Your task to perform on an android device: Add macbook pro to the cart on costco Image 0: 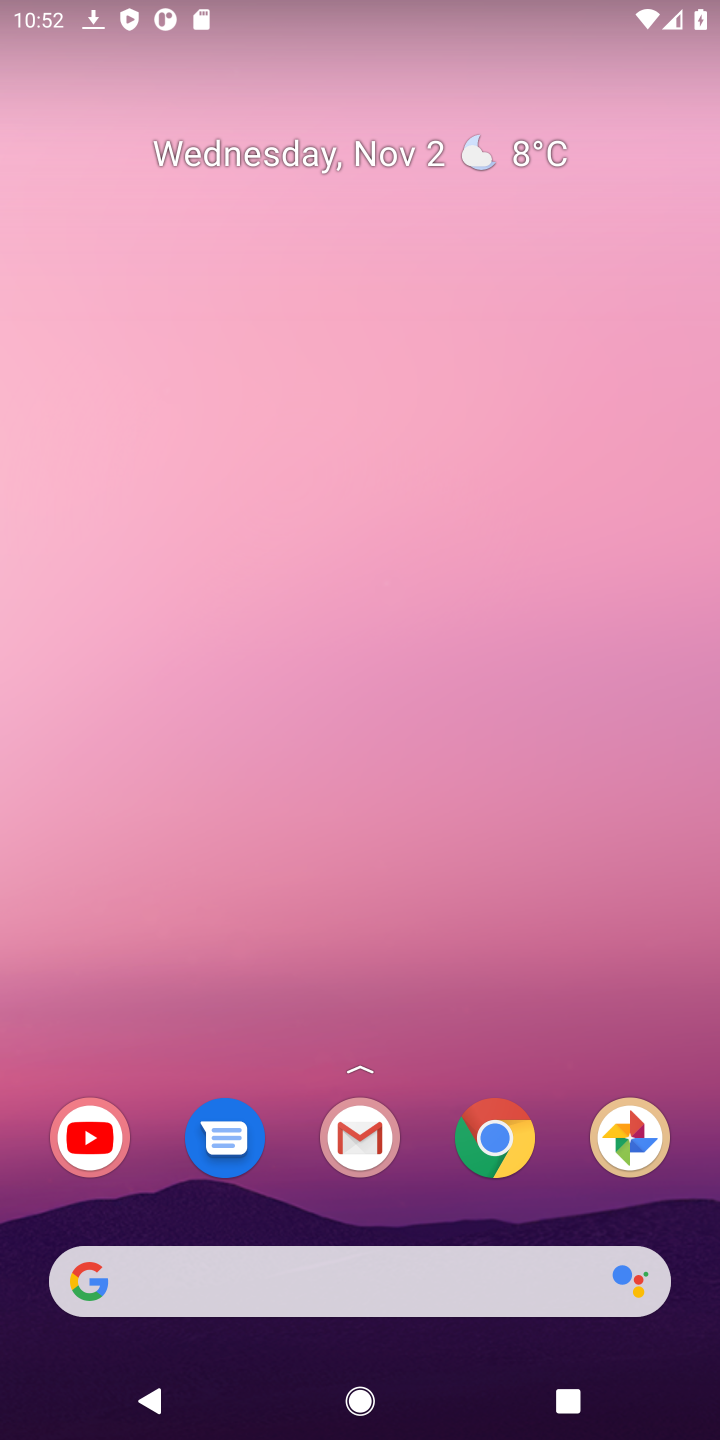
Step 0: click (485, 1108)
Your task to perform on an android device: Add macbook pro to the cart on costco Image 1: 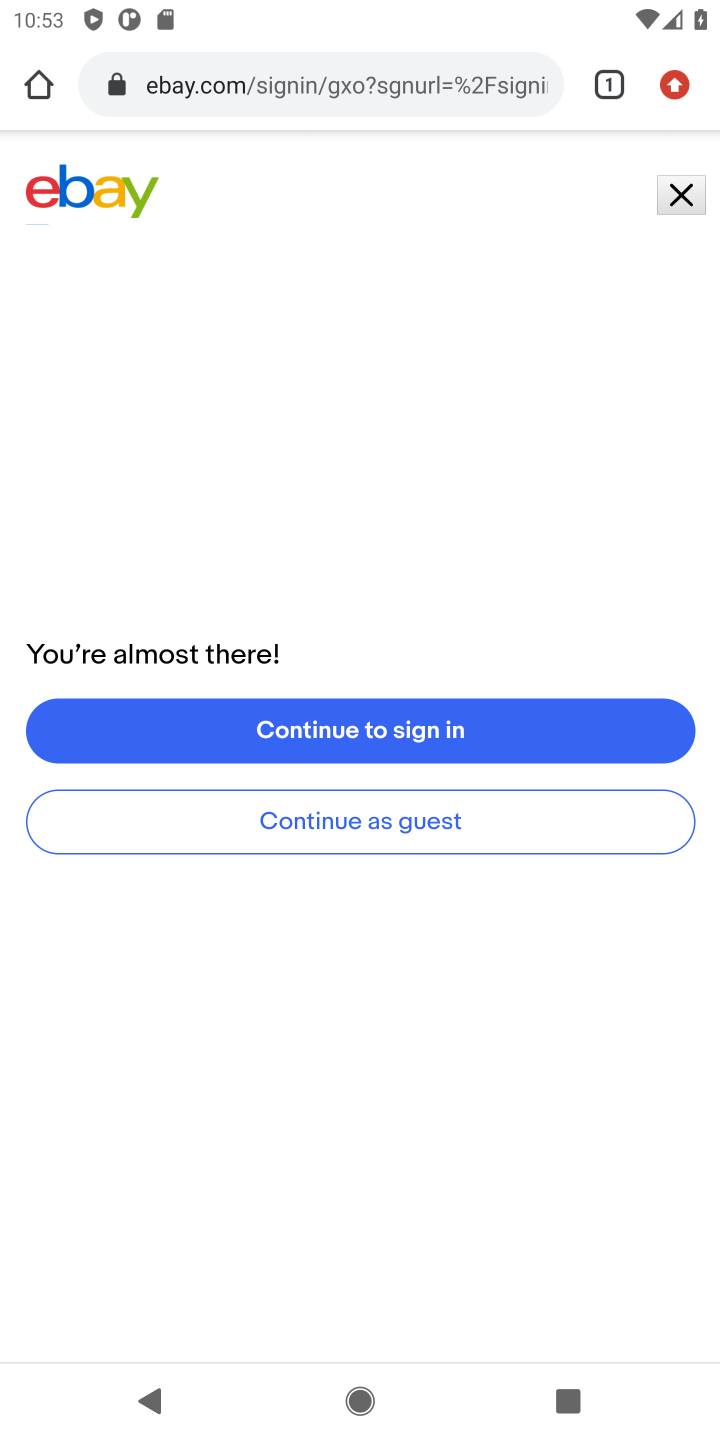
Step 1: click (242, 93)
Your task to perform on an android device: Add macbook pro to the cart on costco Image 2: 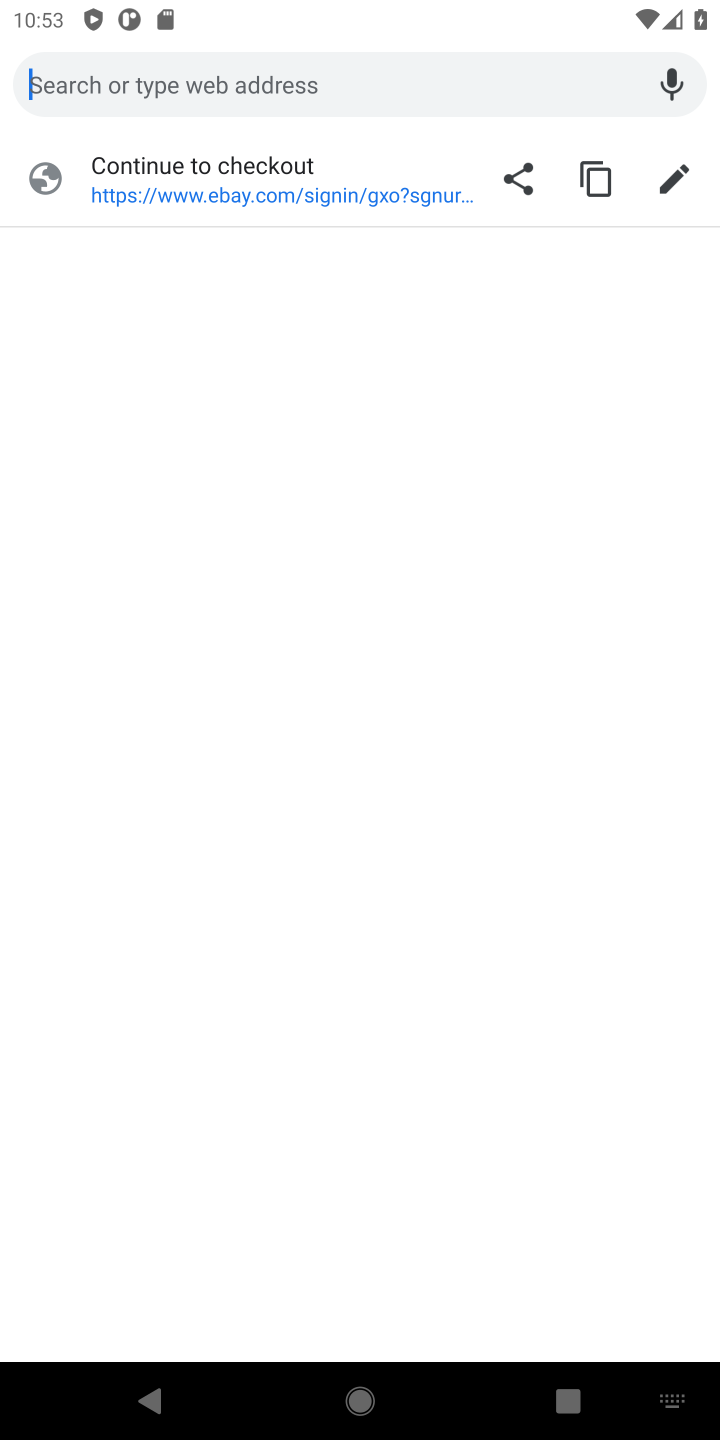
Step 2: click (242, 93)
Your task to perform on an android device: Add macbook pro to the cart on costco Image 3: 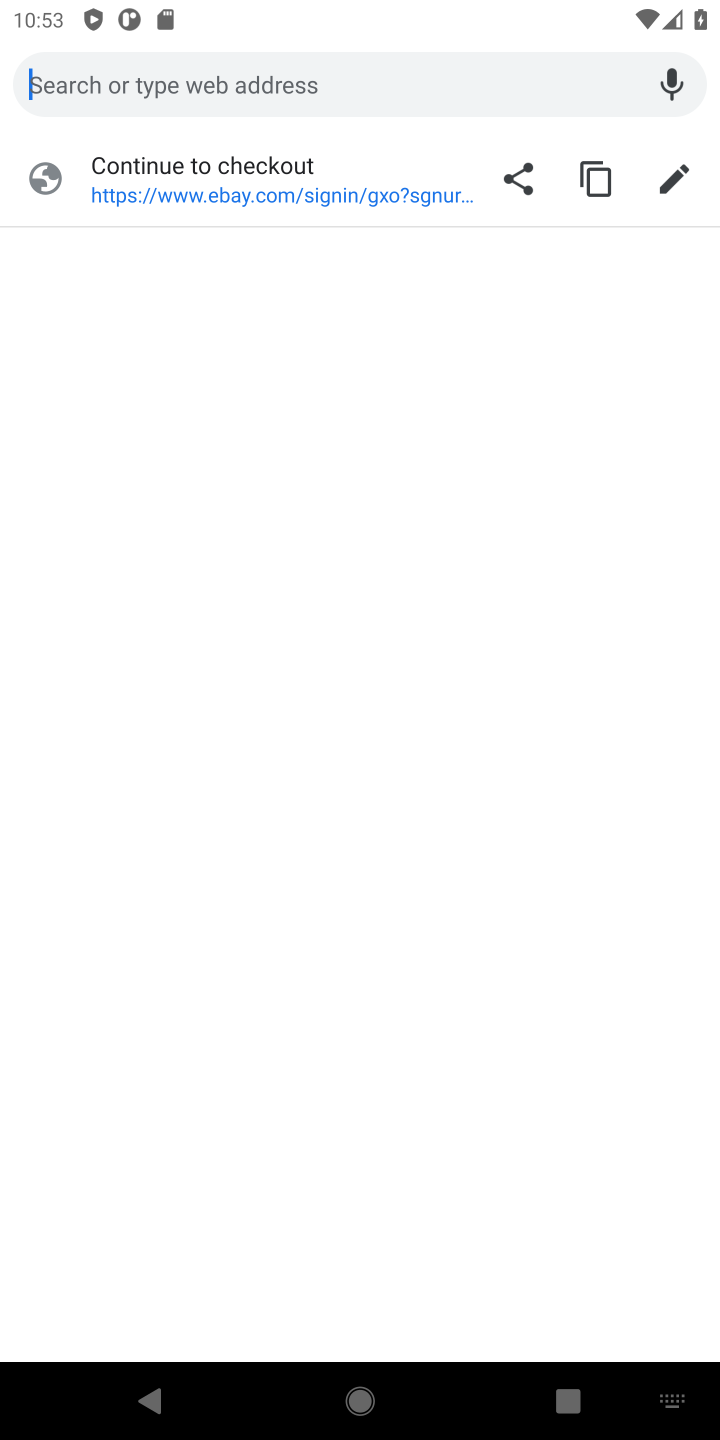
Step 3: type "costco"
Your task to perform on an android device: Add macbook pro to the cart on costco Image 4: 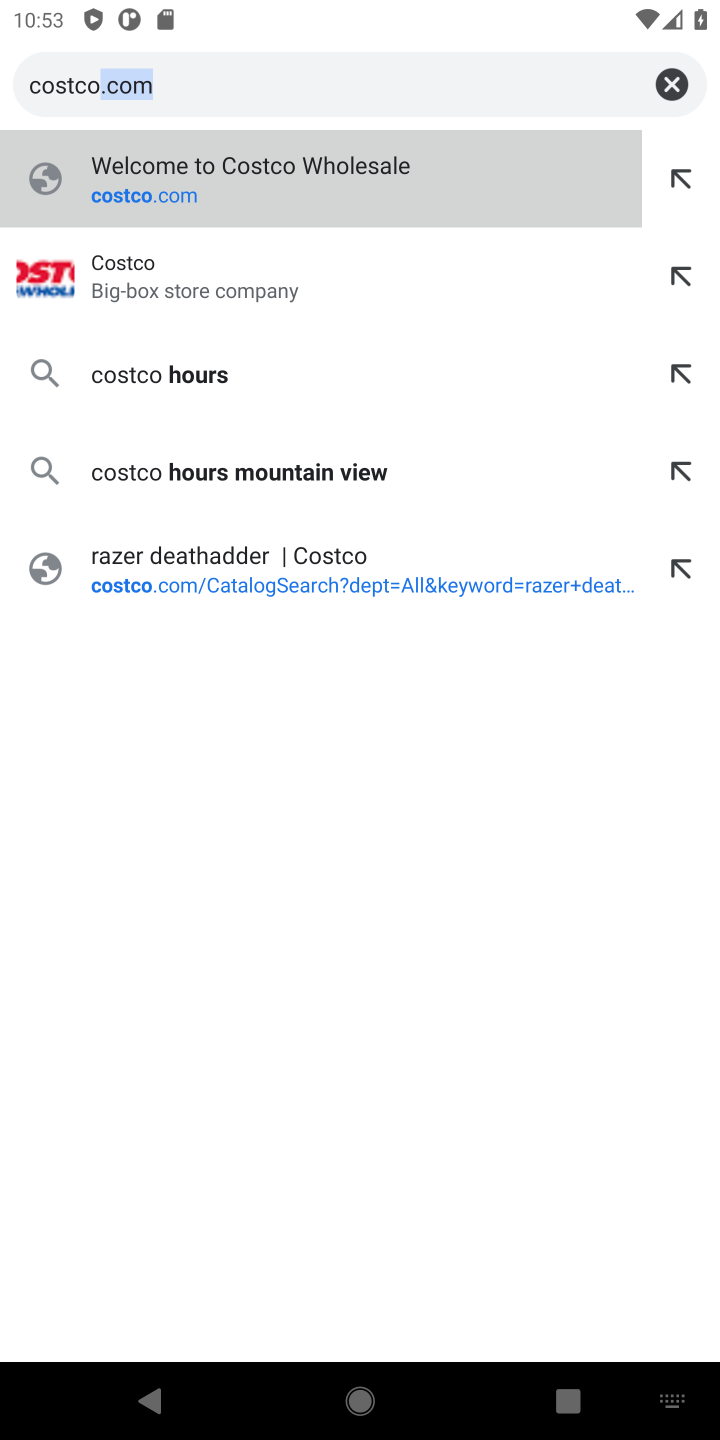
Step 4: click (290, 284)
Your task to perform on an android device: Add macbook pro to the cart on costco Image 5: 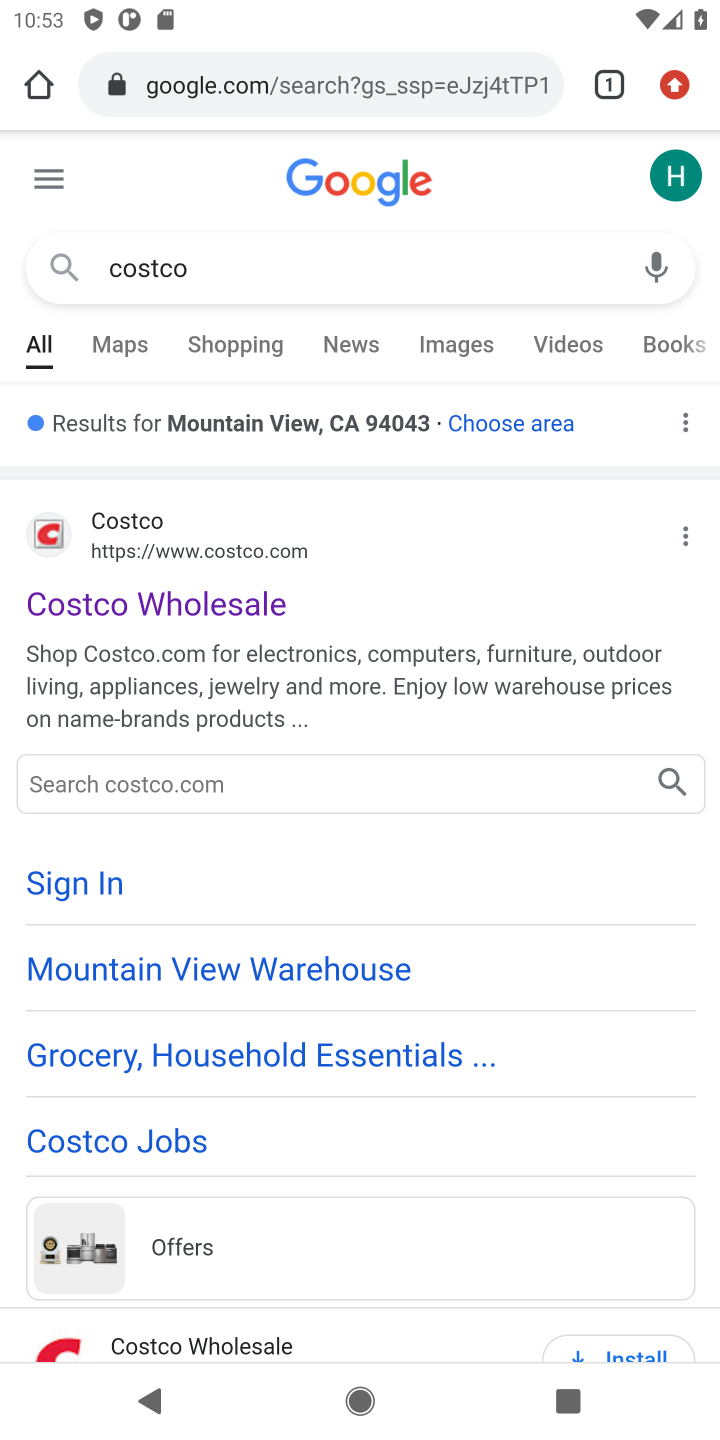
Step 5: click (101, 609)
Your task to perform on an android device: Add macbook pro to the cart on costco Image 6: 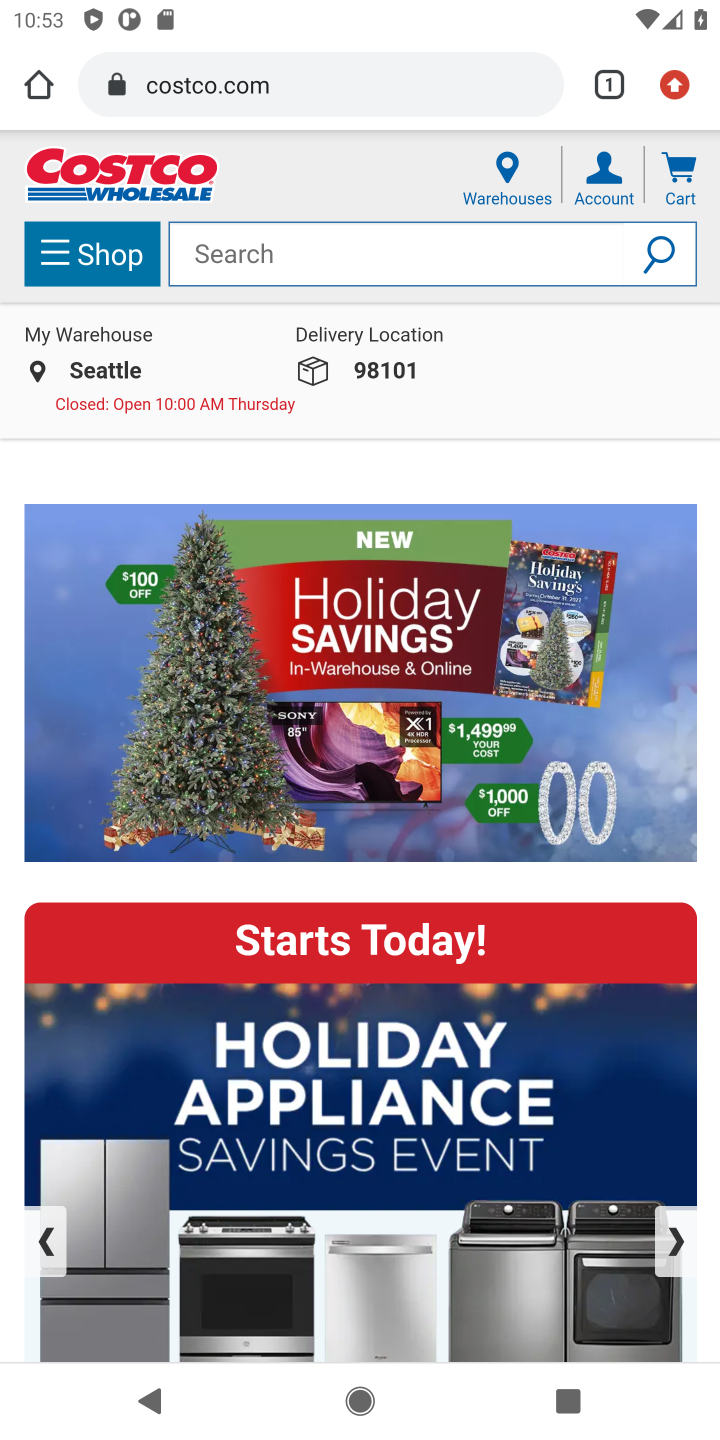
Step 6: click (300, 250)
Your task to perform on an android device: Add macbook pro to the cart on costco Image 7: 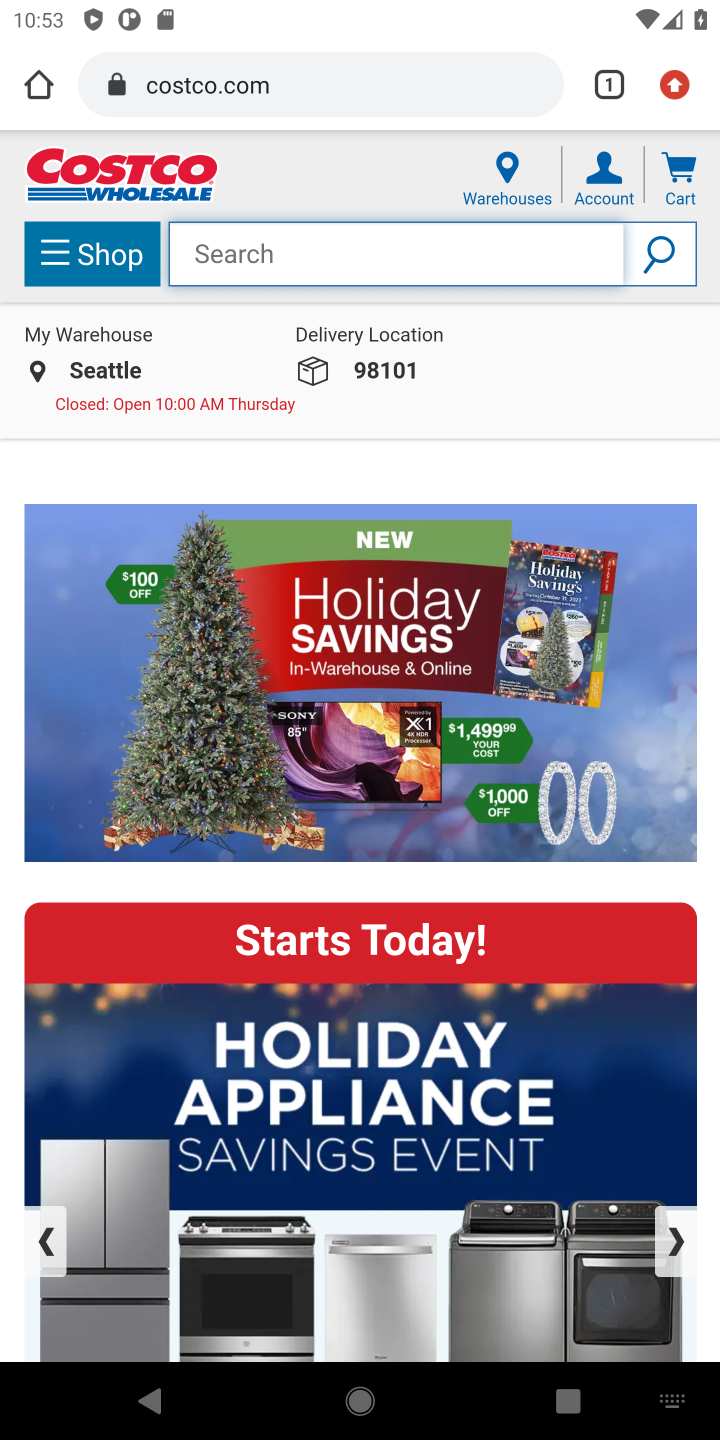
Step 7: type "macbook pro"
Your task to perform on an android device: Add macbook pro to the cart on costco Image 8: 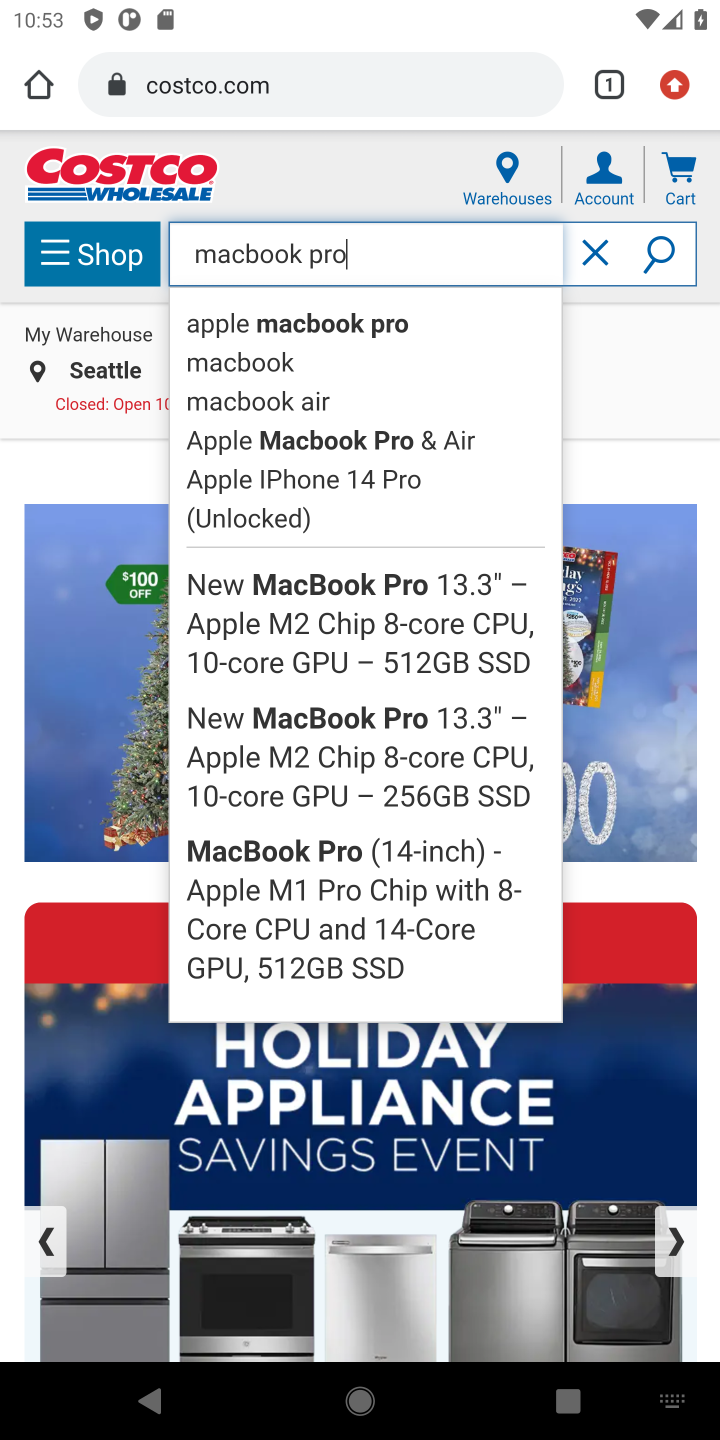
Step 8: click (670, 251)
Your task to perform on an android device: Add macbook pro to the cart on costco Image 9: 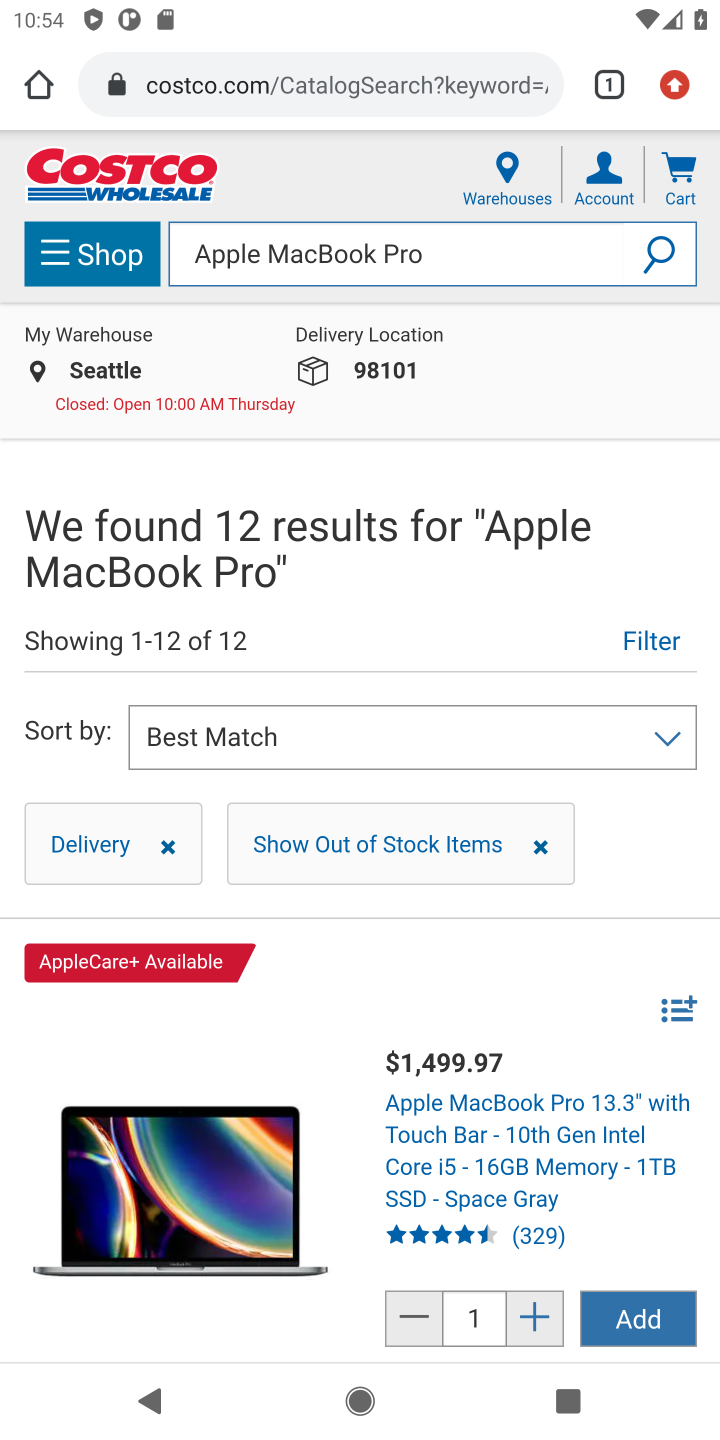
Step 9: click (633, 1316)
Your task to perform on an android device: Add macbook pro to the cart on costco Image 10: 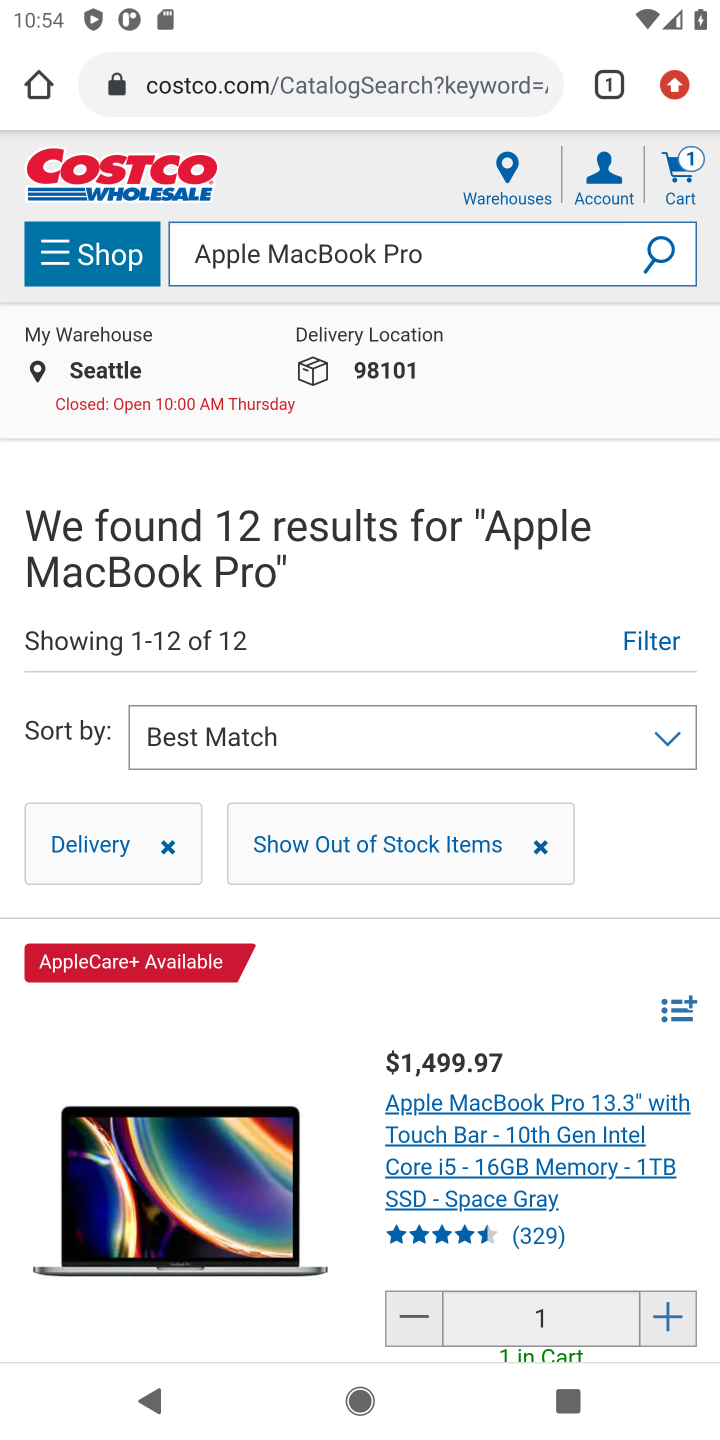
Step 10: task complete